Your task to perform on an android device: turn off wifi Image 0: 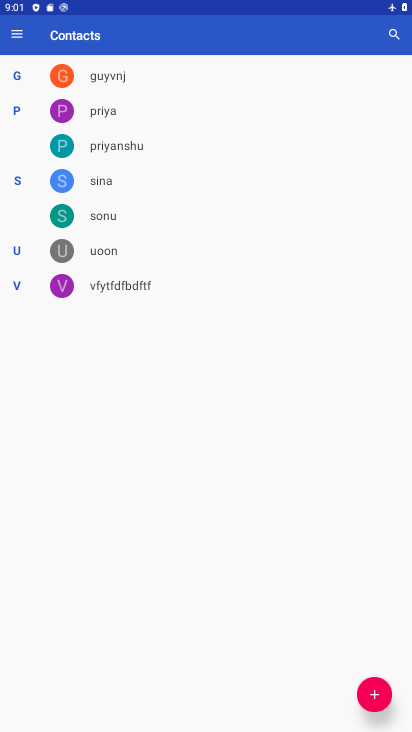
Step 0: press home button
Your task to perform on an android device: turn off wifi Image 1: 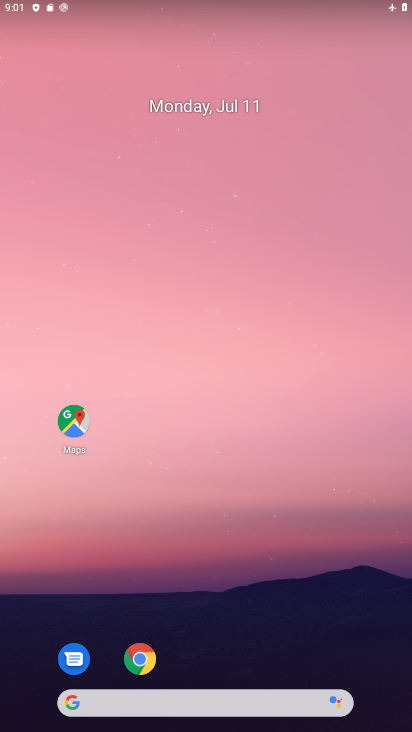
Step 1: drag from (209, 659) to (181, 211)
Your task to perform on an android device: turn off wifi Image 2: 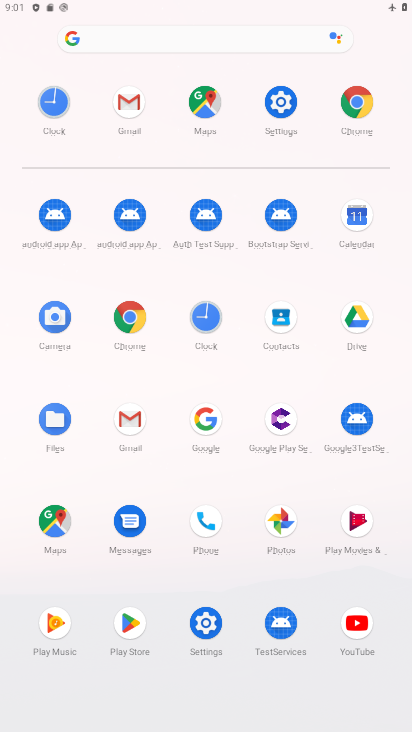
Step 2: click (265, 118)
Your task to perform on an android device: turn off wifi Image 3: 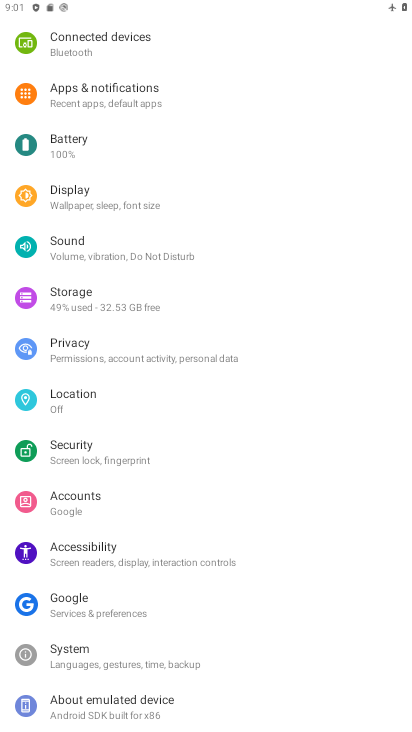
Step 3: drag from (196, 155) to (201, 440)
Your task to perform on an android device: turn off wifi Image 4: 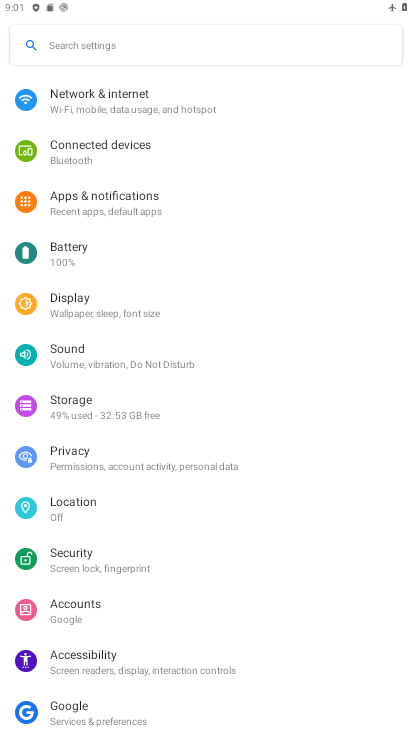
Step 4: click (113, 120)
Your task to perform on an android device: turn off wifi Image 5: 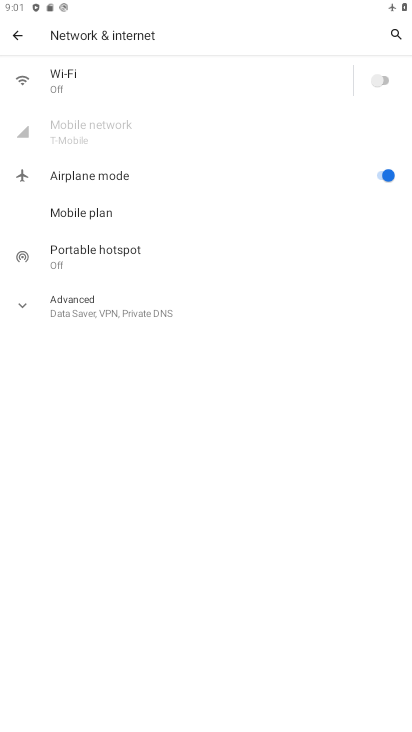
Step 5: task complete